Your task to perform on an android device: manage bookmarks in the chrome app Image 0: 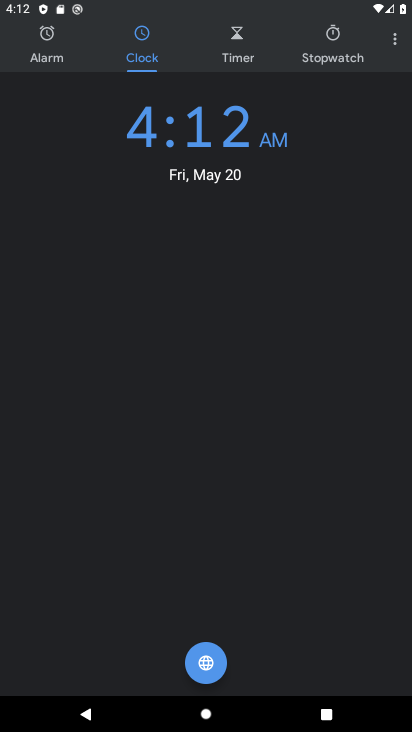
Step 0: press home button
Your task to perform on an android device: manage bookmarks in the chrome app Image 1: 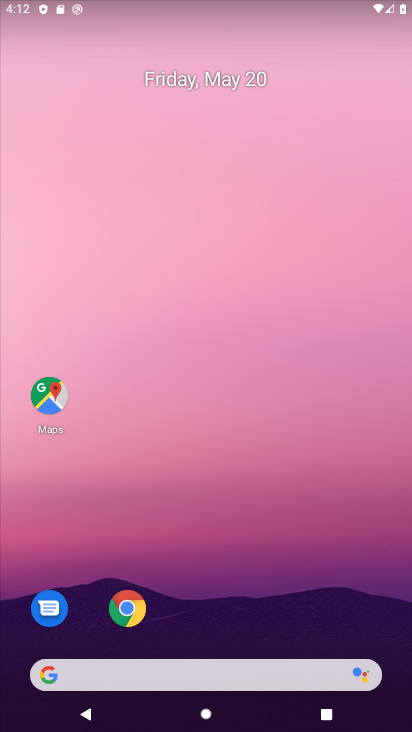
Step 1: click (136, 621)
Your task to perform on an android device: manage bookmarks in the chrome app Image 2: 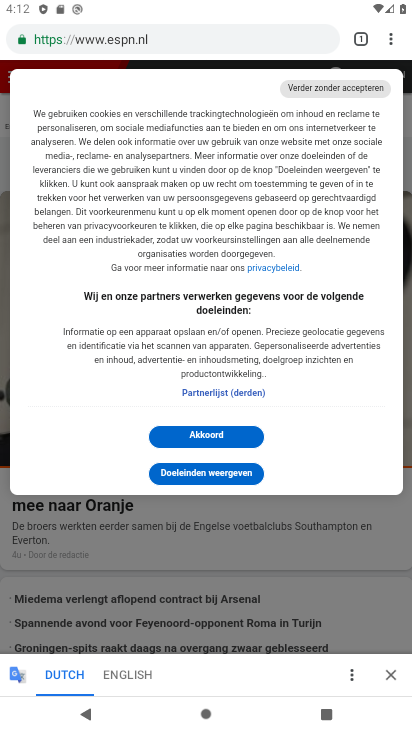
Step 2: click (385, 45)
Your task to perform on an android device: manage bookmarks in the chrome app Image 3: 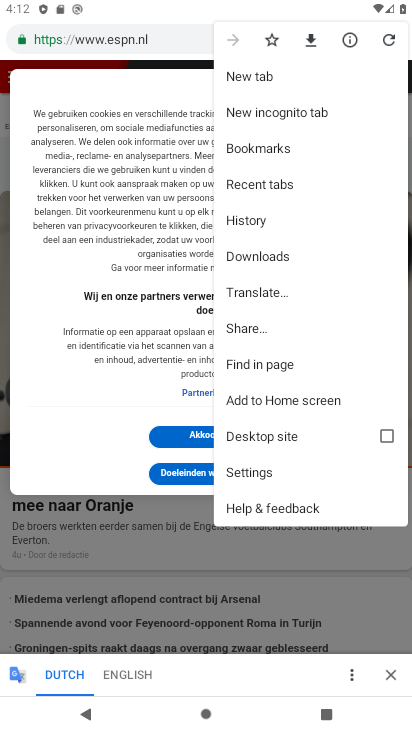
Step 3: click (254, 157)
Your task to perform on an android device: manage bookmarks in the chrome app Image 4: 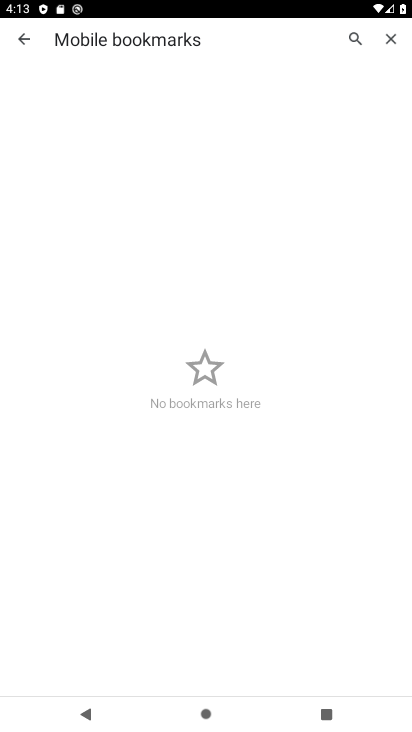
Step 4: task complete